Your task to perform on an android device: toggle wifi Image 0: 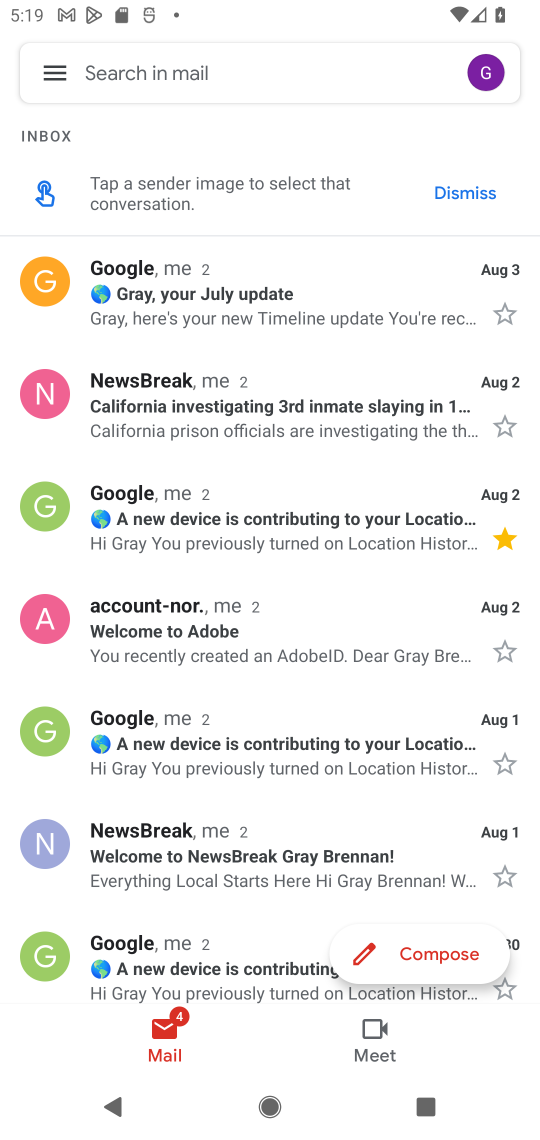
Step 0: task complete